Your task to perform on an android device: turn on notifications settings in the gmail app Image 0: 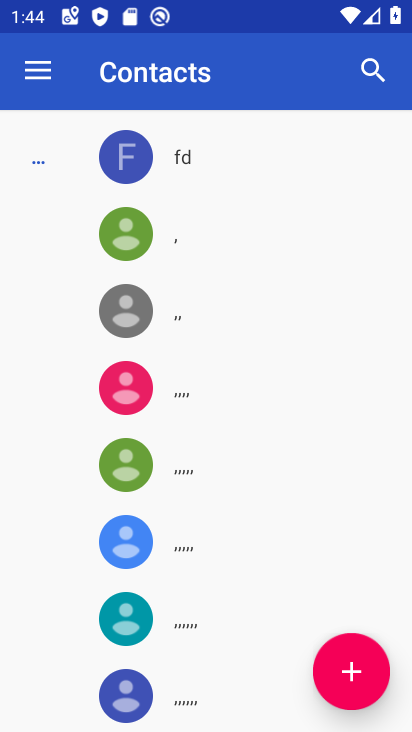
Step 0: press home button
Your task to perform on an android device: turn on notifications settings in the gmail app Image 1: 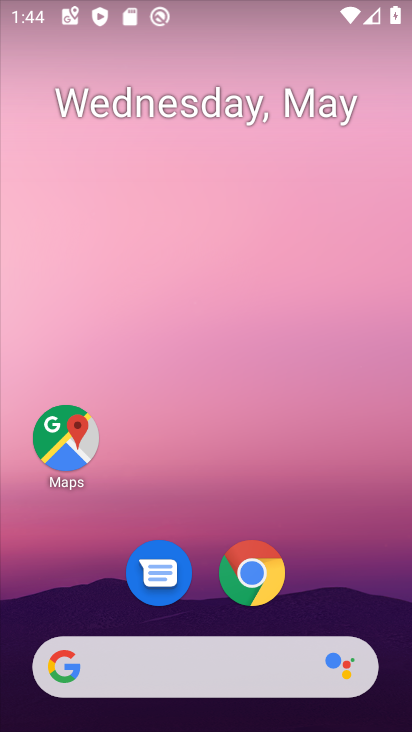
Step 1: drag from (312, 576) to (299, 27)
Your task to perform on an android device: turn on notifications settings in the gmail app Image 2: 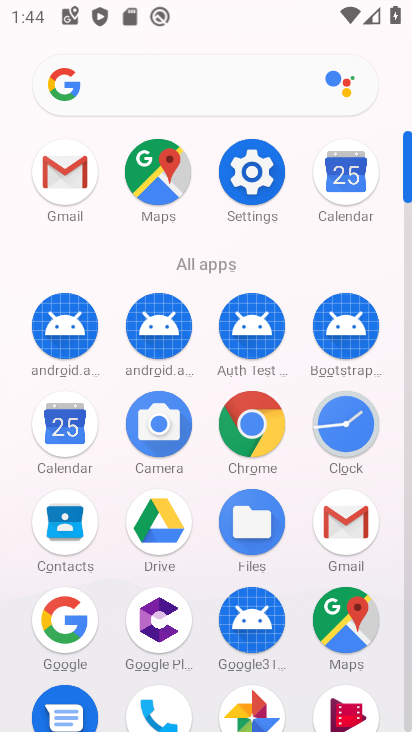
Step 2: click (77, 193)
Your task to perform on an android device: turn on notifications settings in the gmail app Image 3: 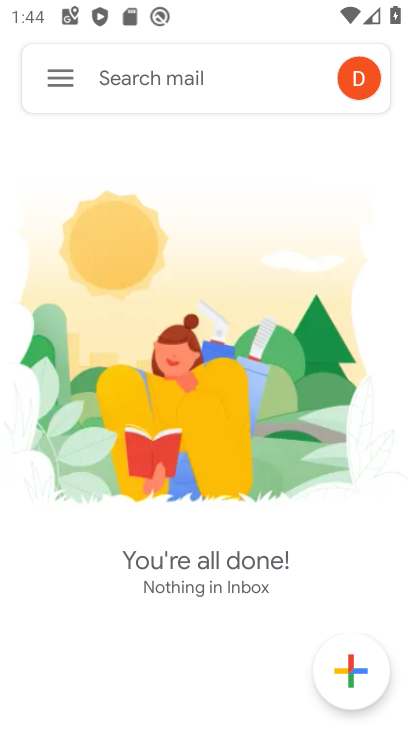
Step 3: click (73, 88)
Your task to perform on an android device: turn on notifications settings in the gmail app Image 4: 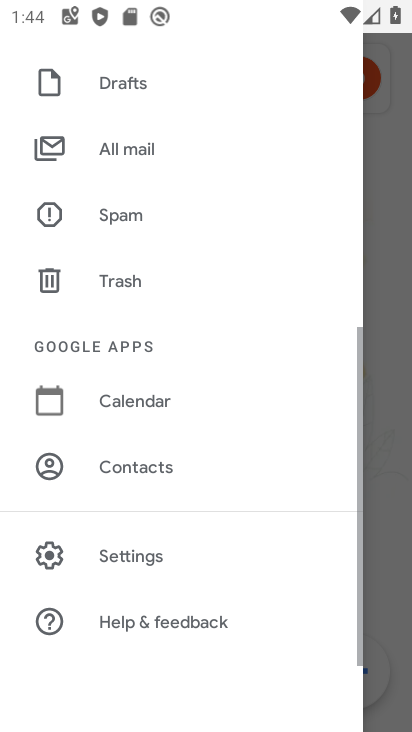
Step 4: click (226, 558)
Your task to perform on an android device: turn on notifications settings in the gmail app Image 5: 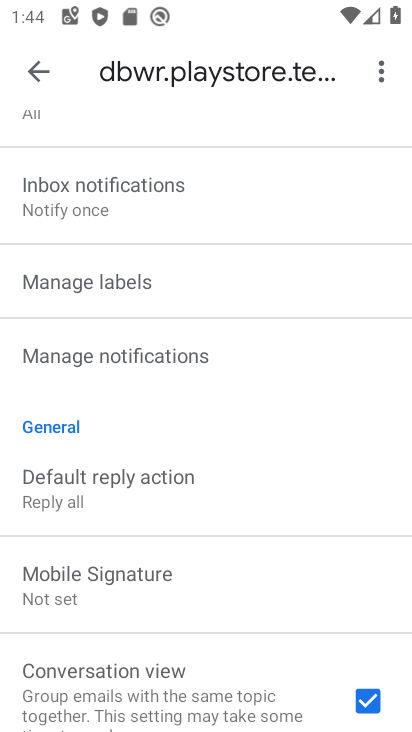
Step 5: click (134, 375)
Your task to perform on an android device: turn on notifications settings in the gmail app Image 6: 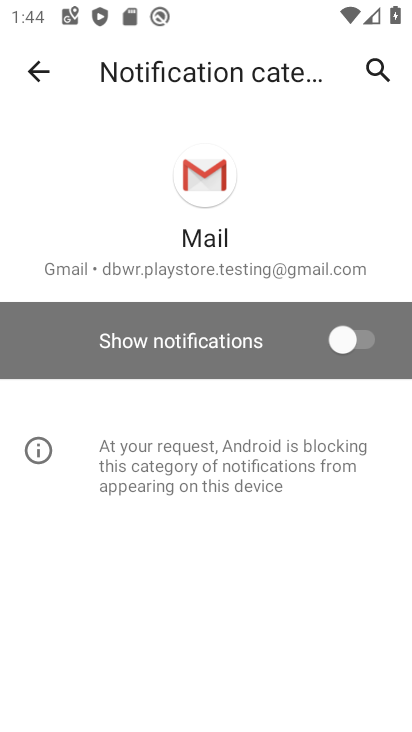
Step 6: click (375, 325)
Your task to perform on an android device: turn on notifications settings in the gmail app Image 7: 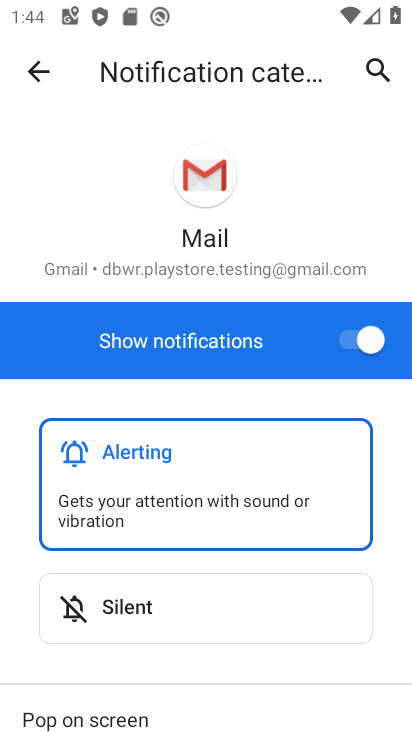
Step 7: task complete